Your task to perform on an android device: What is the news today? Image 0: 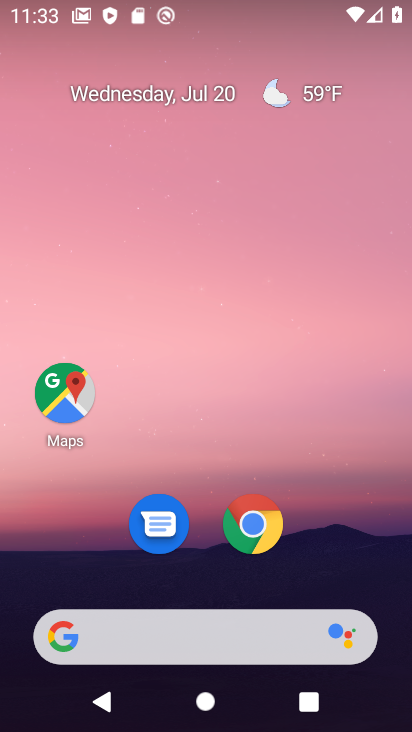
Step 0: click (154, 645)
Your task to perform on an android device: What is the news today? Image 1: 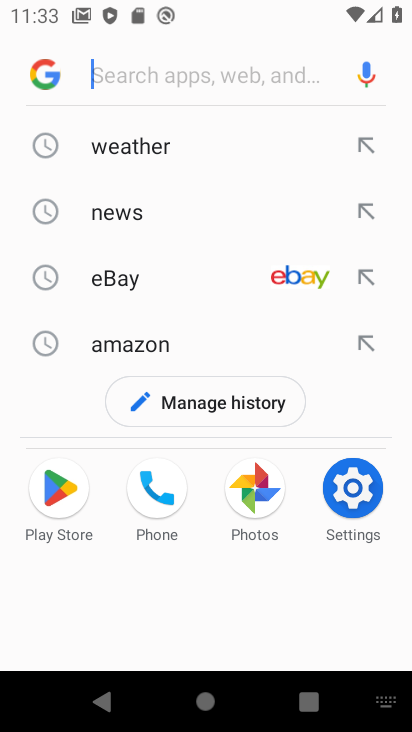
Step 1: click (127, 211)
Your task to perform on an android device: What is the news today? Image 2: 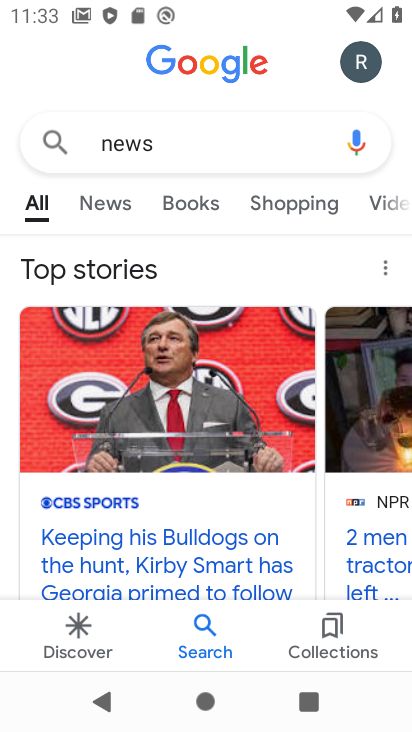
Step 2: click (111, 204)
Your task to perform on an android device: What is the news today? Image 3: 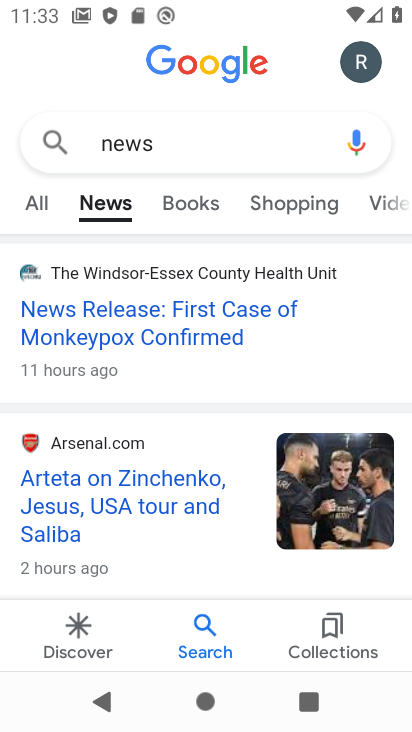
Step 3: task complete